Your task to perform on an android device: toggle priority inbox in the gmail app Image 0: 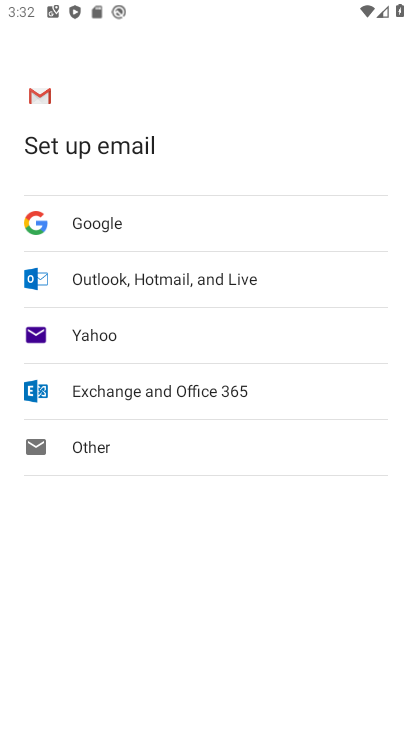
Step 0: press home button
Your task to perform on an android device: toggle priority inbox in the gmail app Image 1: 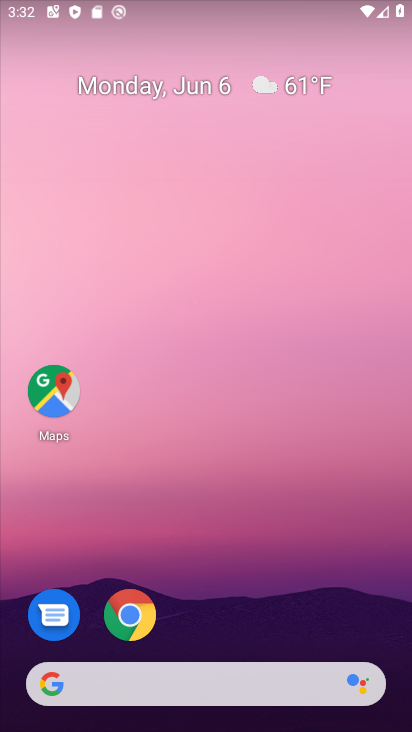
Step 1: drag from (361, 627) to (316, 129)
Your task to perform on an android device: toggle priority inbox in the gmail app Image 2: 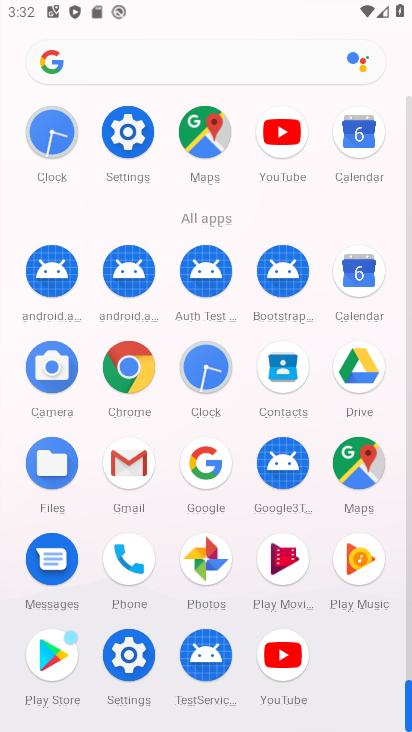
Step 2: click (130, 457)
Your task to perform on an android device: toggle priority inbox in the gmail app Image 3: 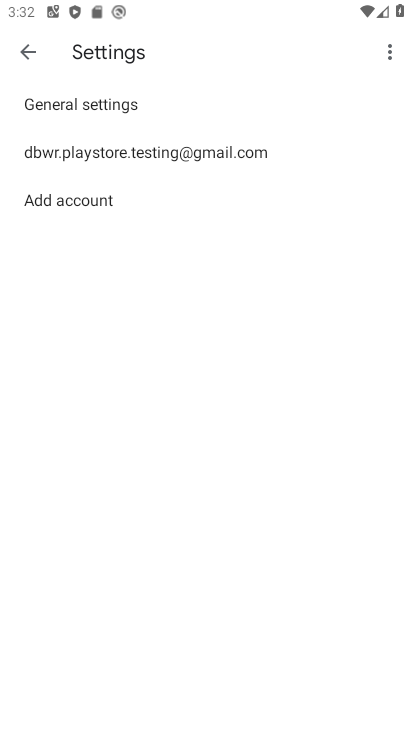
Step 3: click (119, 149)
Your task to perform on an android device: toggle priority inbox in the gmail app Image 4: 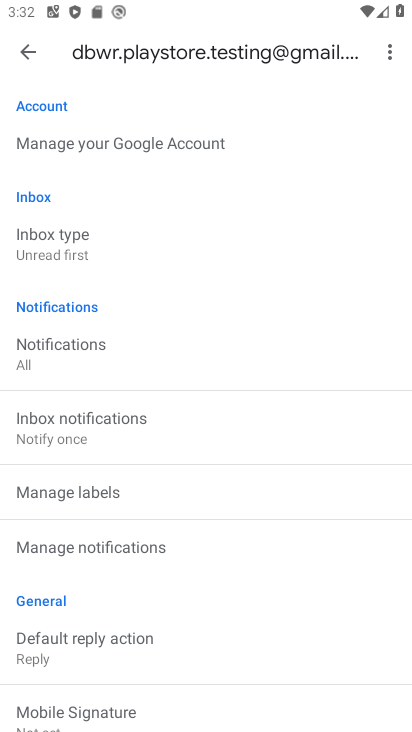
Step 4: click (61, 242)
Your task to perform on an android device: toggle priority inbox in the gmail app Image 5: 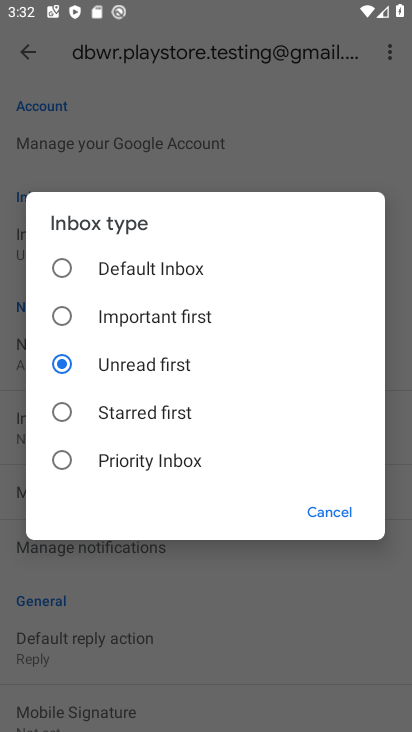
Step 5: click (65, 462)
Your task to perform on an android device: toggle priority inbox in the gmail app Image 6: 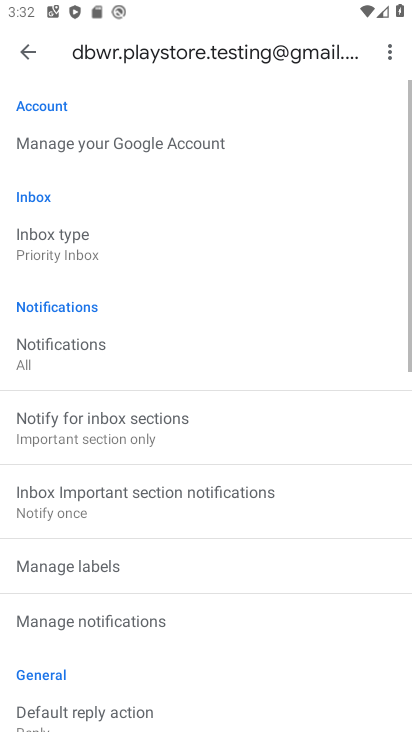
Step 6: task complete